Your task to perform on an android device: turn off wifi Image 0: 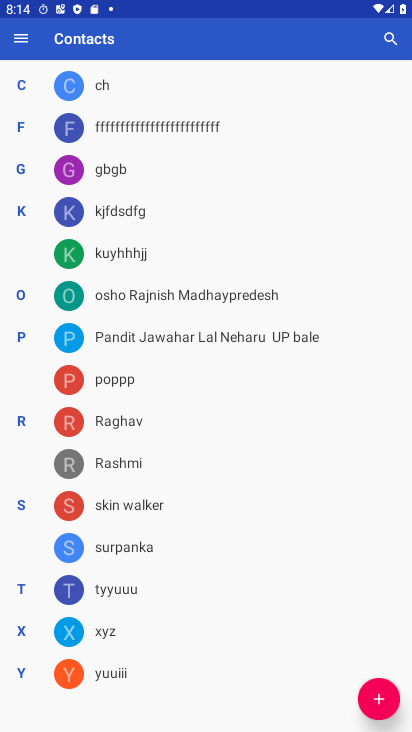
Step 0: press home button
Your task to perform on an android device: turn off wifi Image 1: 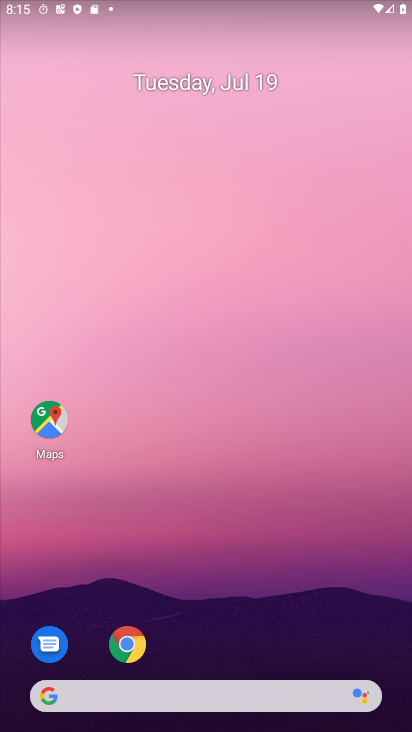
Step 1: drag from (30, 651) to (221, 11)
Your task to perform on an android device: turn off wifi Image 2: 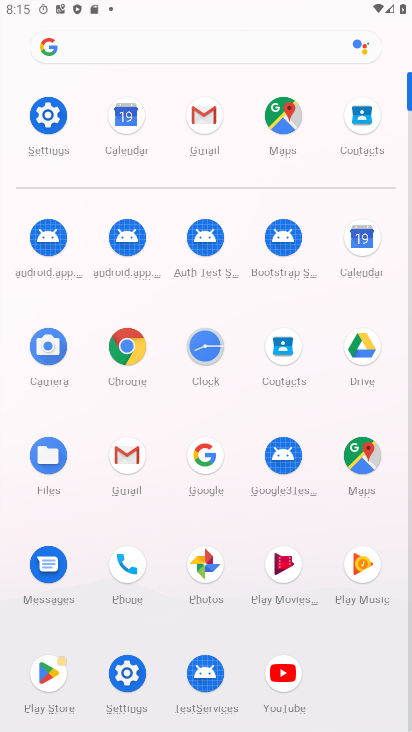
Step 2: click (127, 675)
Your task to perform on an android device: turn off wifi Image 3: 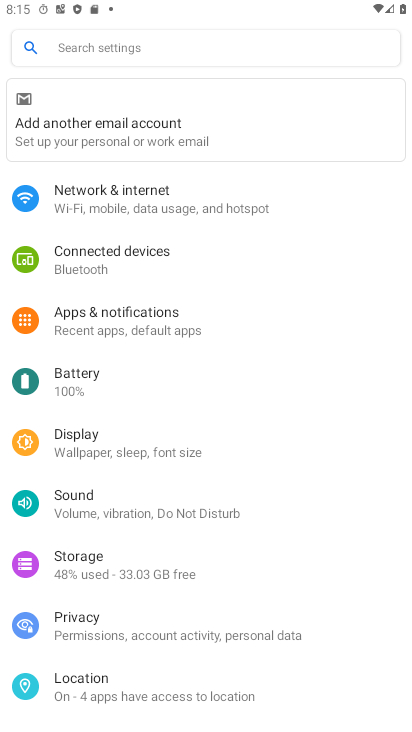
Step 3: click (175, 199)
Your task to perform on an android device: turn off wifi Image 4: 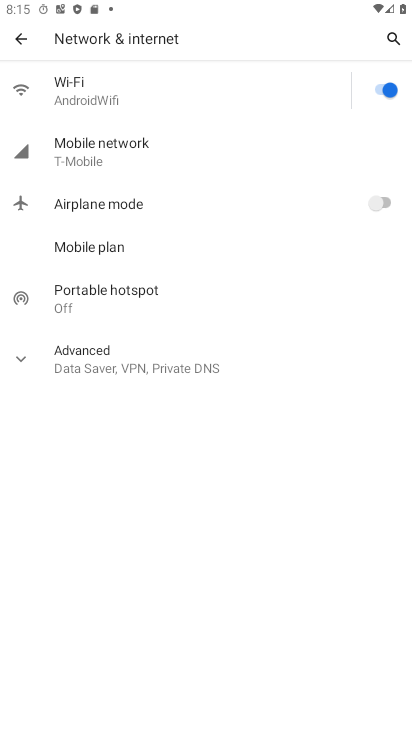
Step 4: task complete